Your task to perform on an android device: When is my next meeting? Image 0: 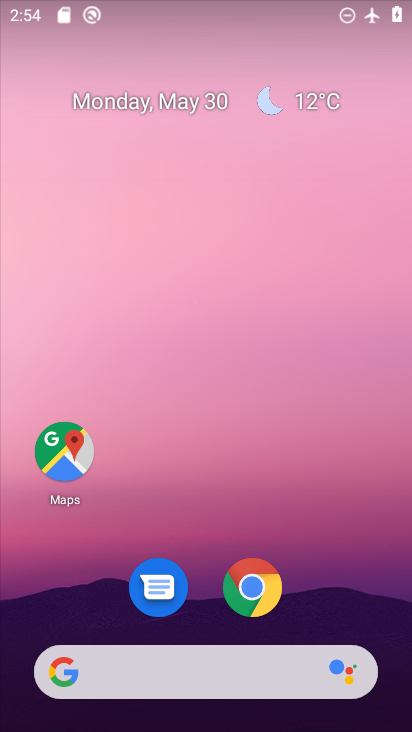
Step 0: drag from (210, 599) to (262, 172)
Your task to perform on an android device: When is my next meeting? Image 1: 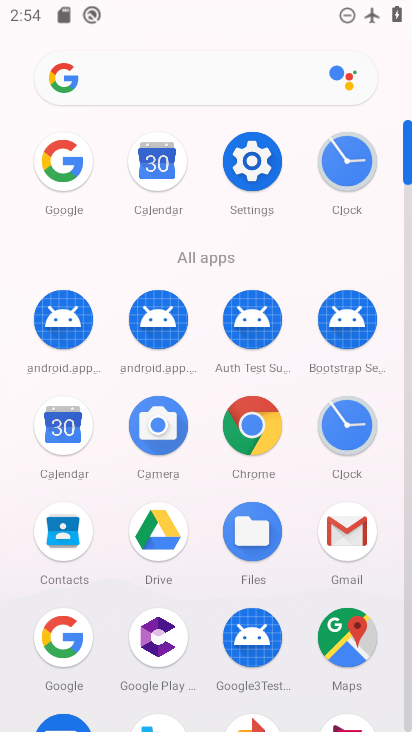
Step 1: click (63, 429)
Your task to perform on an android device: When is my next meeting? Image 2: 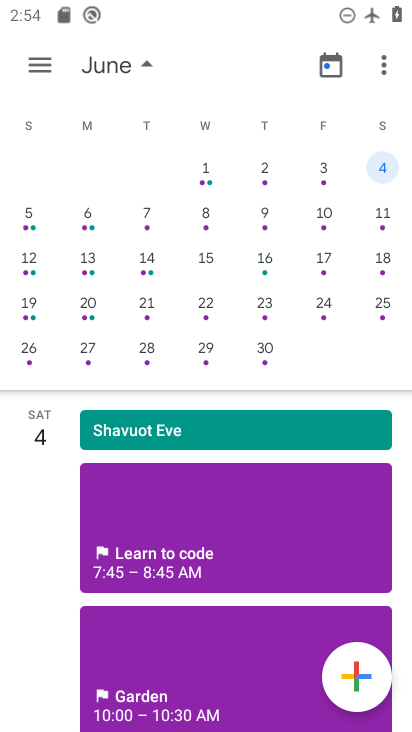
Step 2: click (218, 172)
Your task to perform on an android device: When is my next meeting? Image 3: 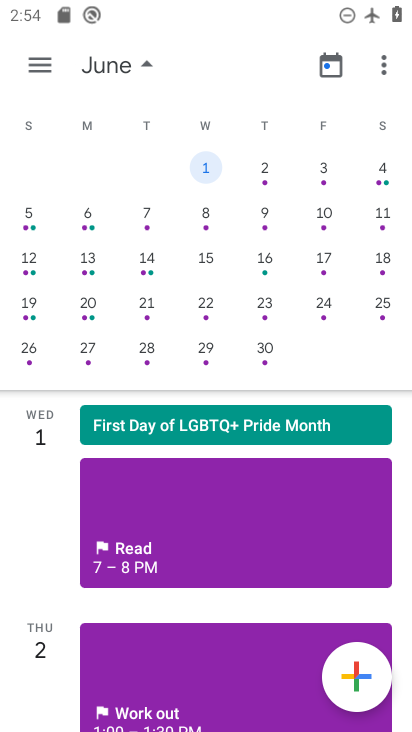
Step 3: click (270, 170)
Your task to perform on an android device: When is my next meeting? Image 4: 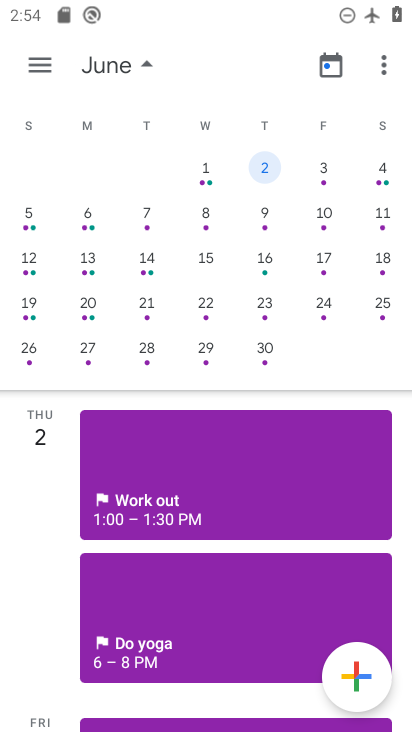
Step 4: click (360, 163)
Your task to perform on an android device: When is my next meeting? Image 5: 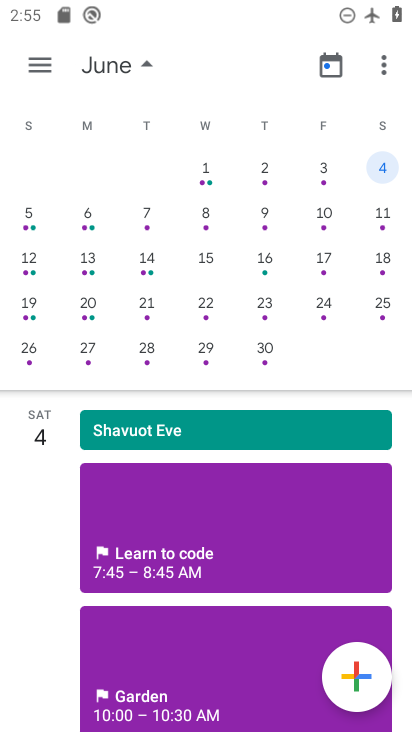
Step 5: drag from (45, 179) to (388, 163)
Your task to perform on an android device: When is my next meeting? Image 6: 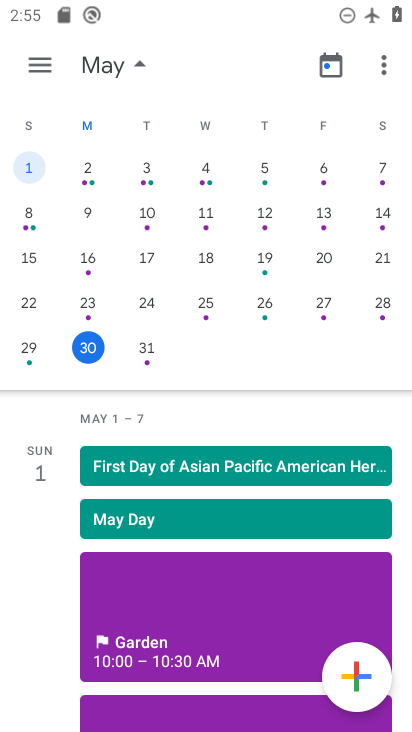
Step 6: click (135, 339)
Your task to perform on an android device: When is my next meeting? Image 7: 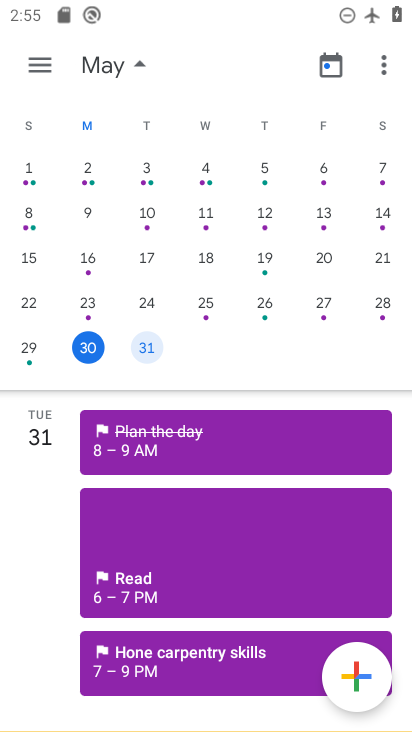
Step 7: task complete